Your task to perform on an android device: Go to eBay Image 0: 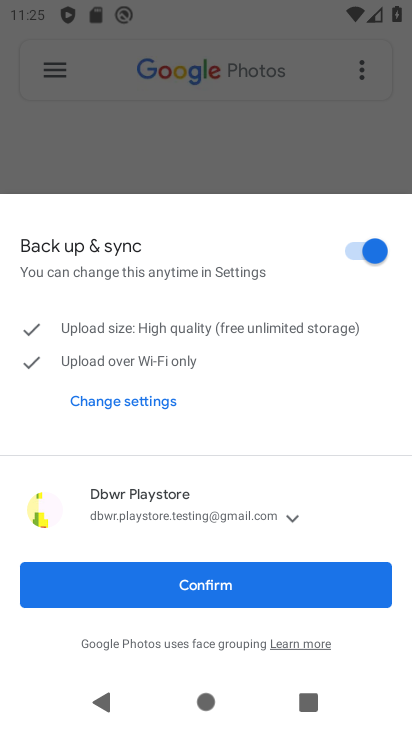
Step 0: press home button
Your task to perform on an android device: Go to eBay Image 1: 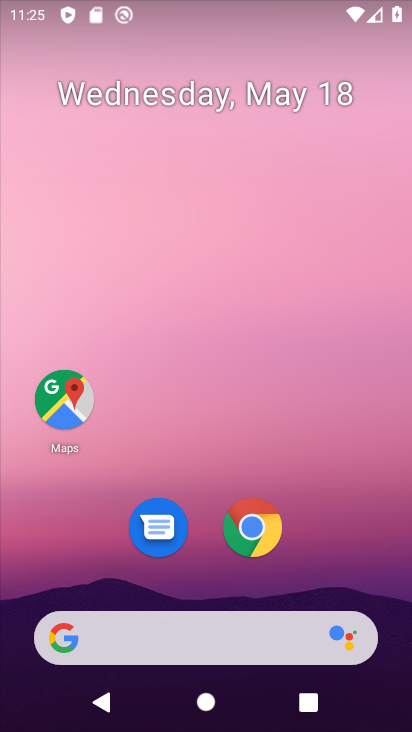
Step 1: click (252, 518)
Your task to perform on an android device: Go to eBay Image 2: 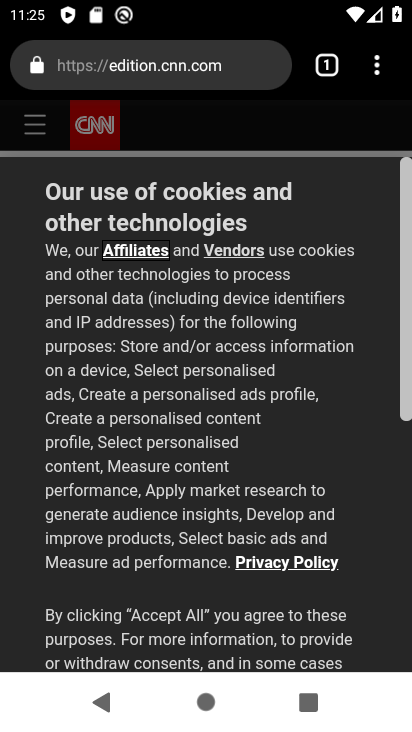
Step 2: click (322, 67)
Your task to perform on an android device: Go to eBay Image 3: 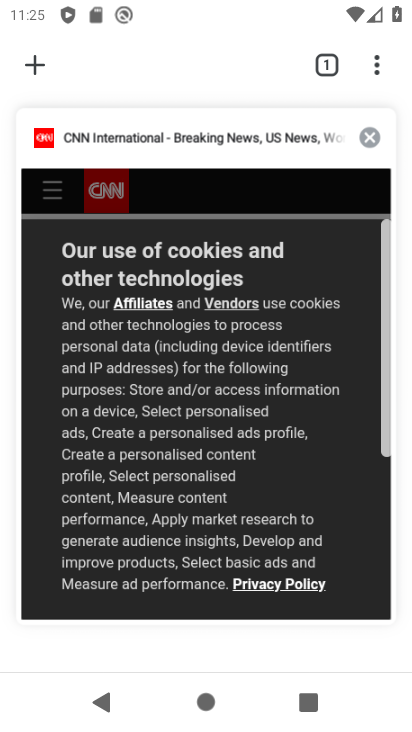
Step 3: click (32, 53)
Your task to perform on an android device: Go to eBay Image 4: 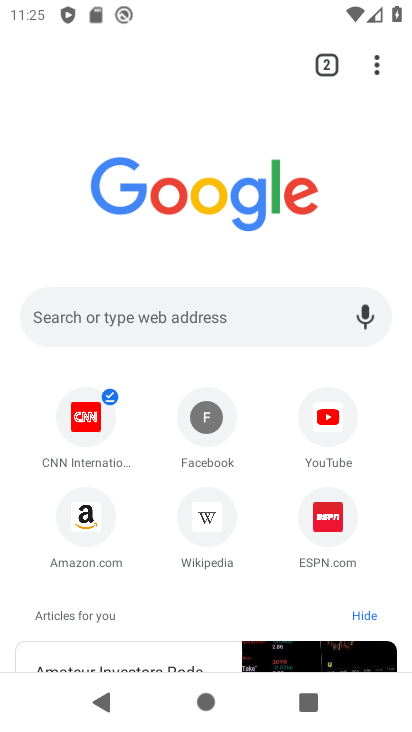
Step 4: click (171, 571)
Your task to perform on an android device: Go to eBay Image 5: 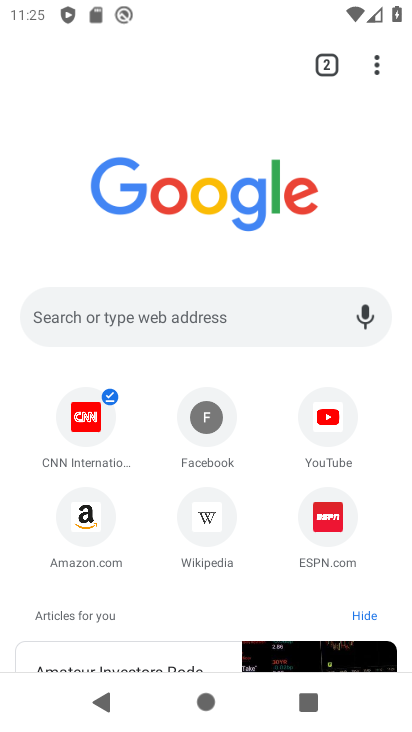
Step 5: click (103, 314)
Your task to perform on an android device: Go to eBay Image 6: 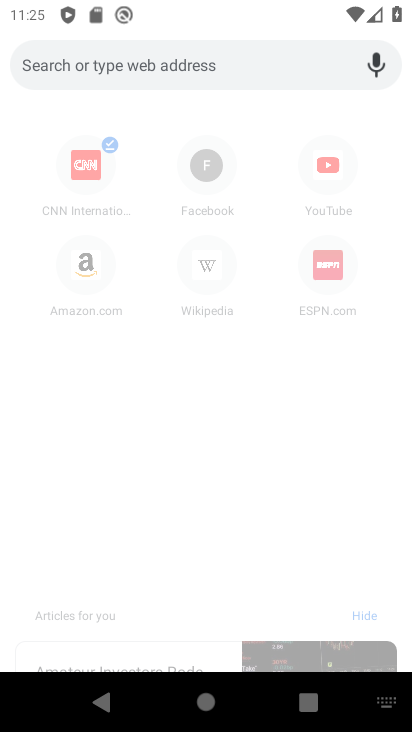
Step 6: type "ebay"
Your task to perform on an android device: Go to eBay Image 7: 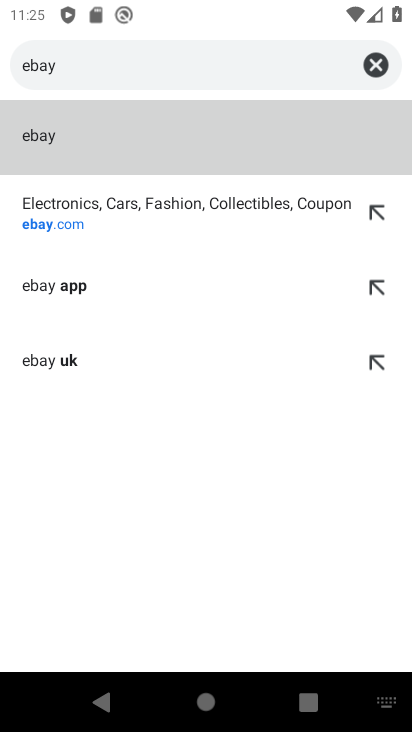
Step 7: click (111, 214)
Your task to perform on an android device: Go to eBay Image 8: 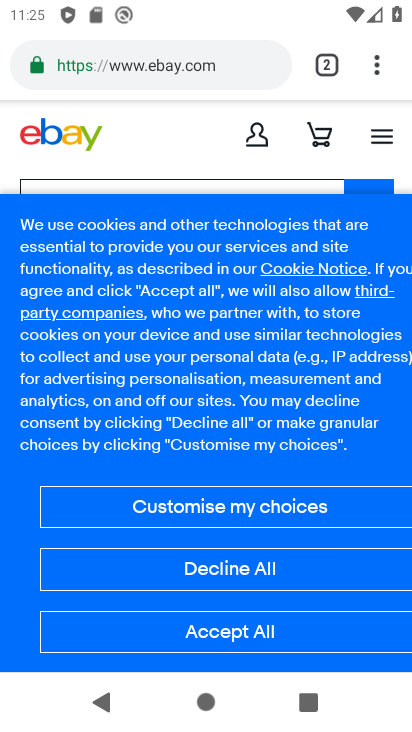
Step 8: task complete